Your task to perform on an android device: toggle notifications settings in the gmail app Image 0: 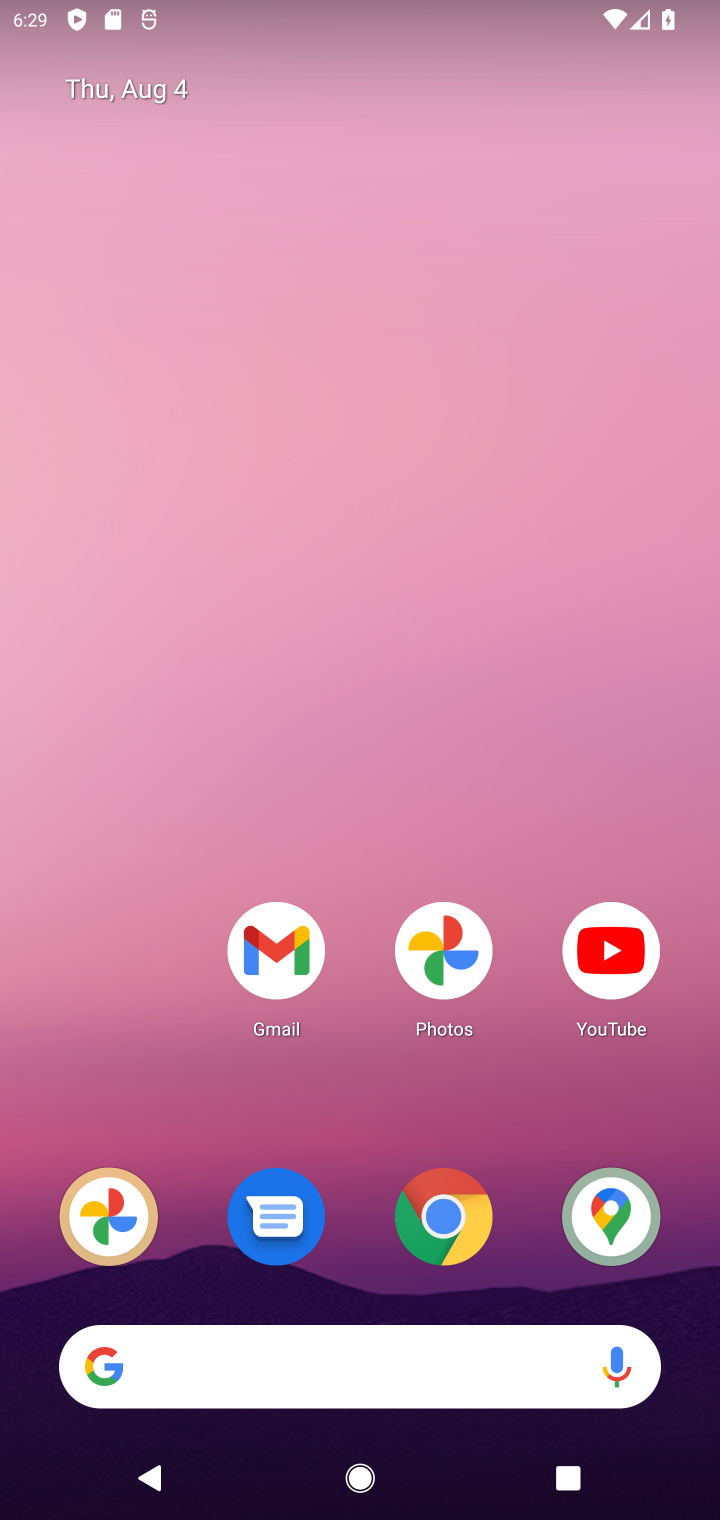
Step 0: drag from (658, 1116) to (591, 854)
Your task to perform on an android device: toggle notifications settings in the gmail app Image 1: 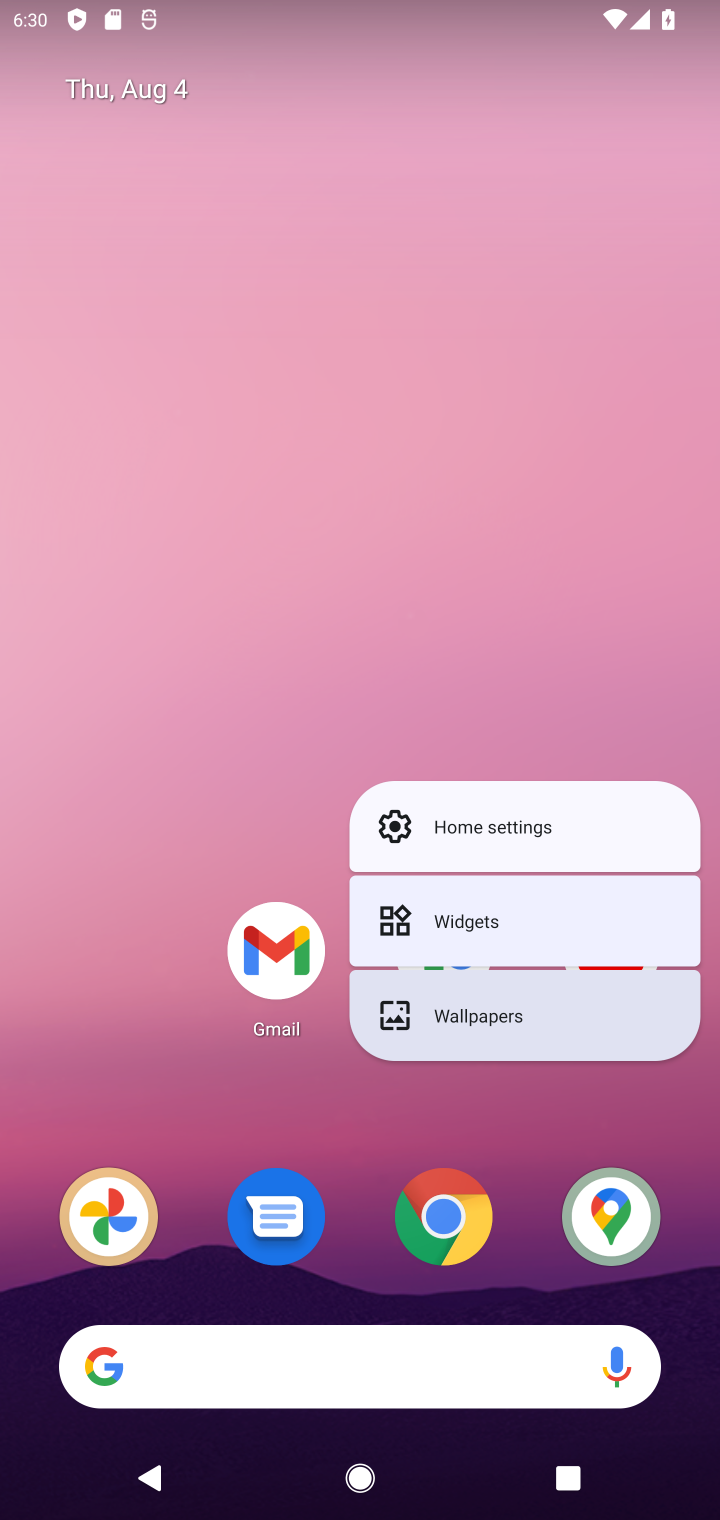
Step 1: click (296, 1014)
Your task to perform on an android device: toggle notifications settings in the gmail app Image 2: 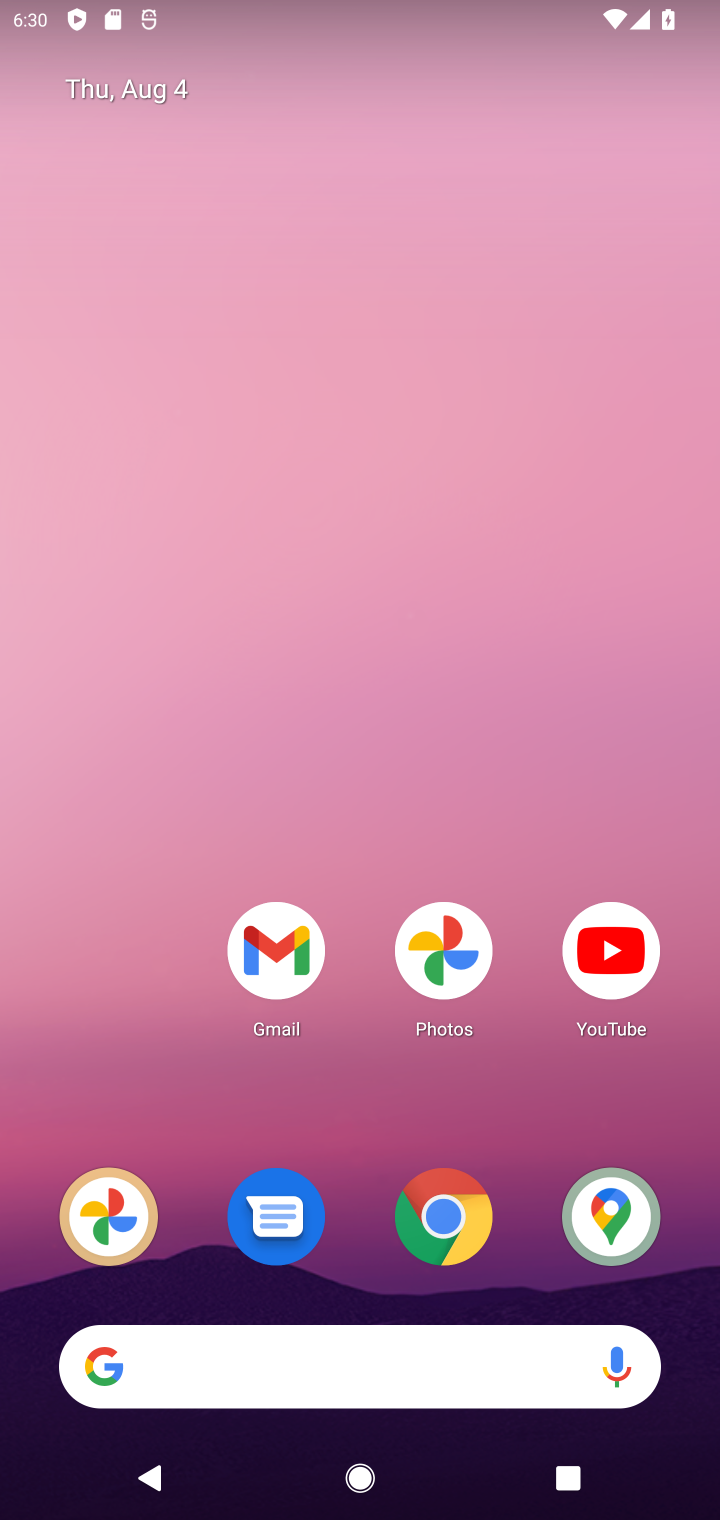
Step 2: click (296, 1014)
Your task to perform on an android device: toggle notifications settings in the gmail app Image 3: 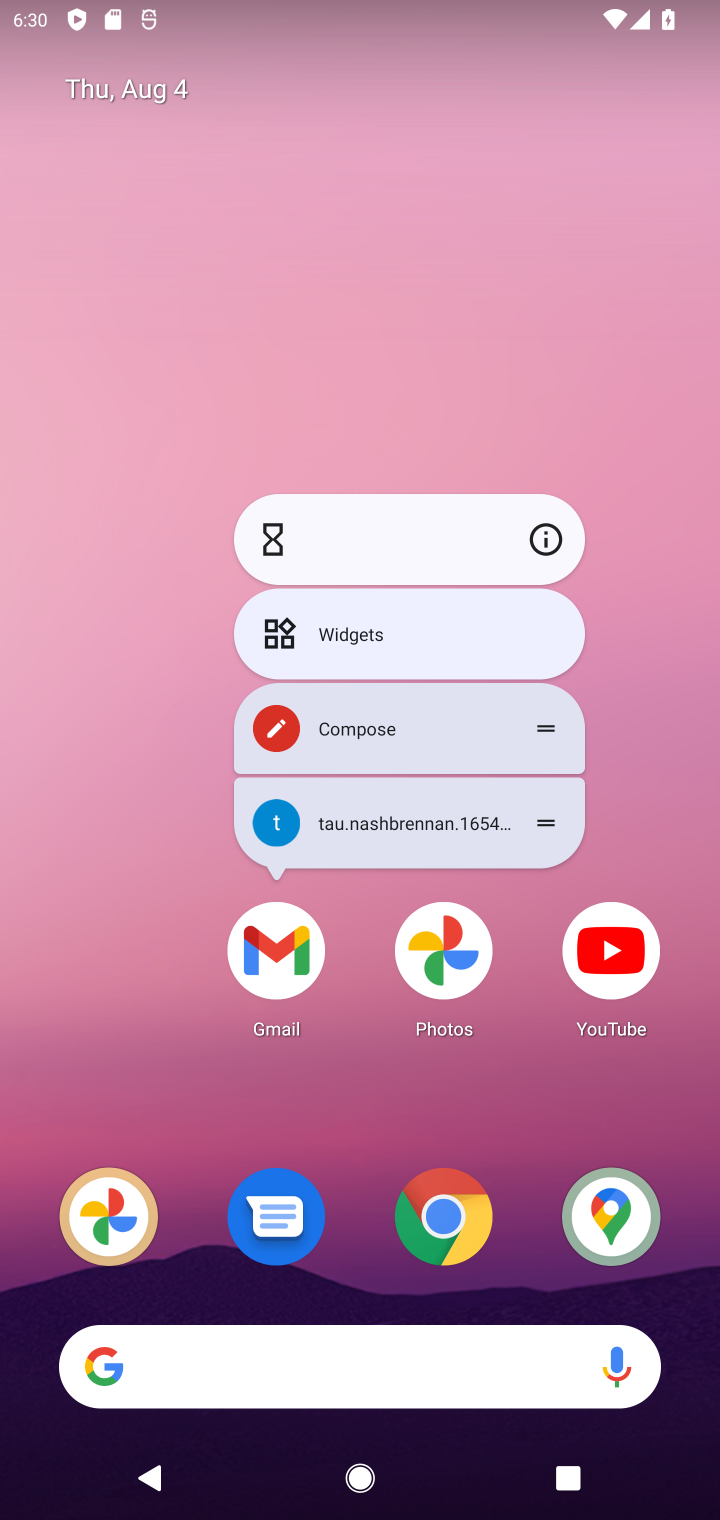
Step 3: click (501, 536)
Your task to perform on an android device: toggle notifications settings in the gmail app Image 4: 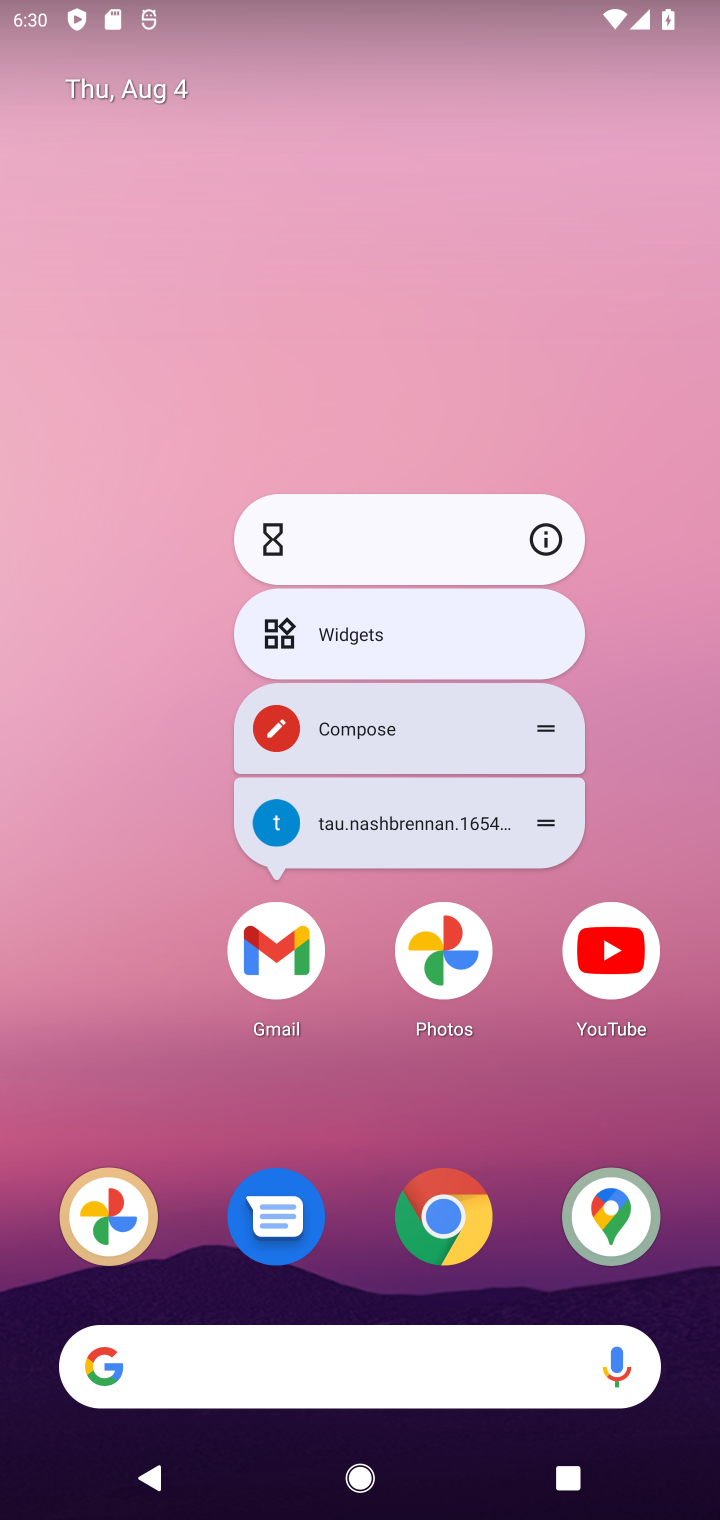
Step 4: click (549, 546)
Your task to perform on an android device: toggle notifications settings in the gmail app Image 5: 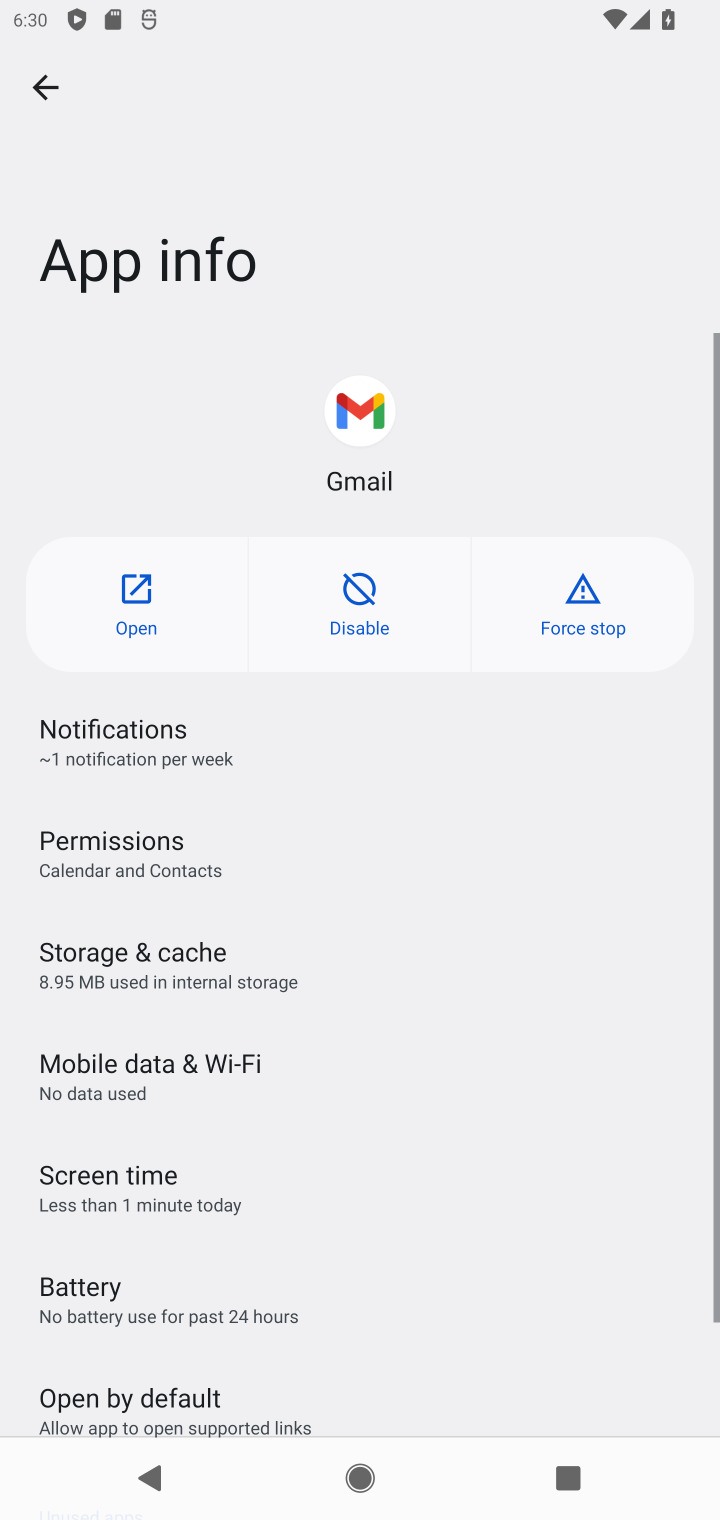
Step 5: click (351, 717)
Your task to perform on an android device: toggle notifications settings in the gmail app Image 6: 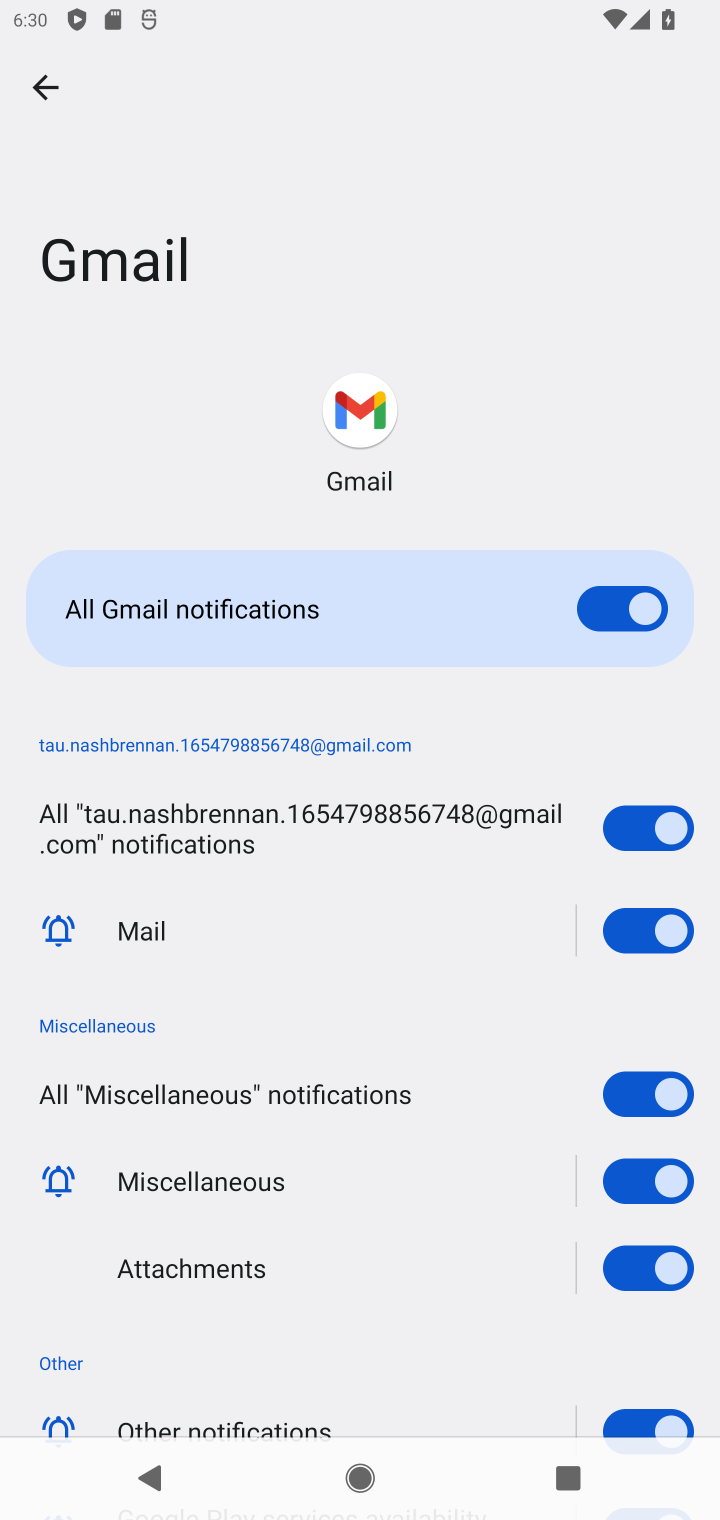
Step 6: click (619, 636)
Your task to perform on an android device: toggle notifications settings in the gmail app Image 7: 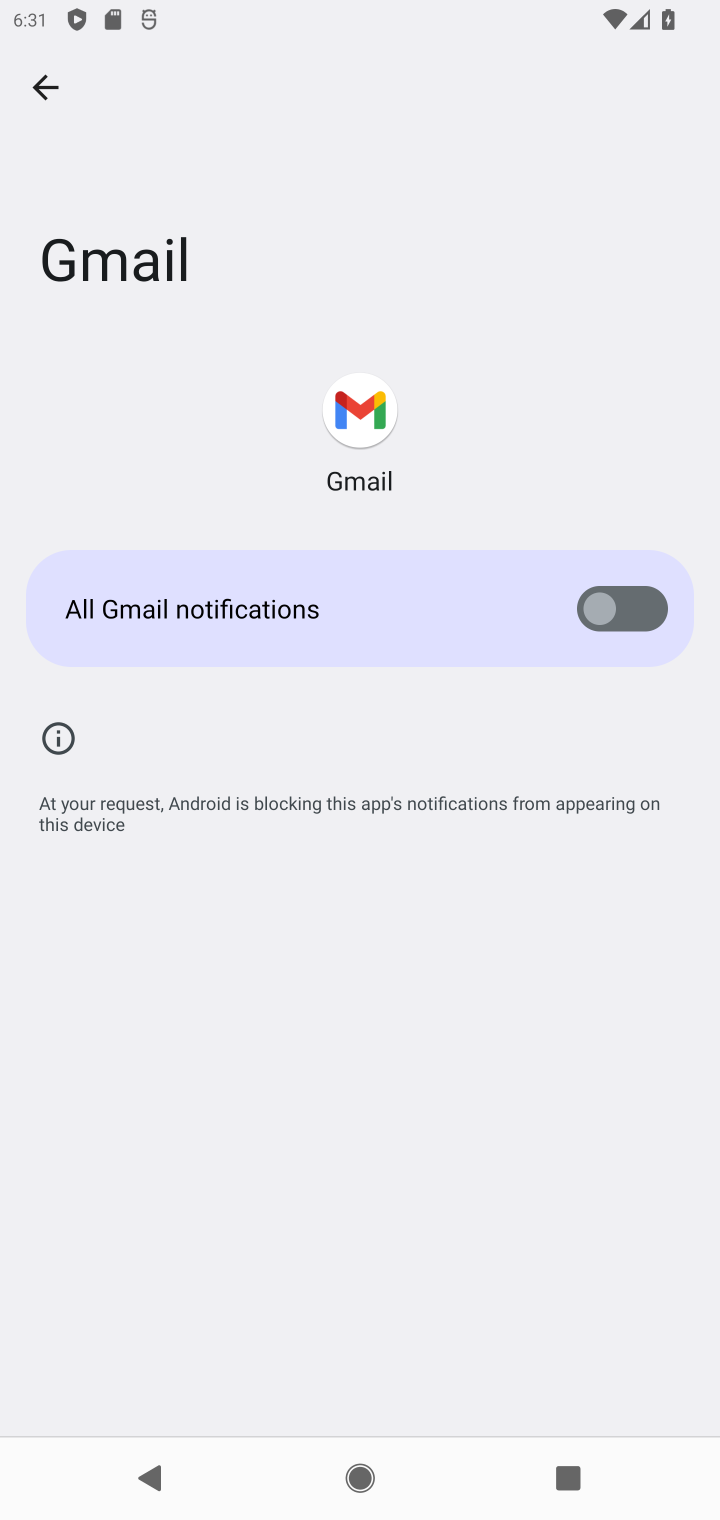
Step 7: task complete